Your task to perform on an android device: uninstall "AliExpress" Image 0: 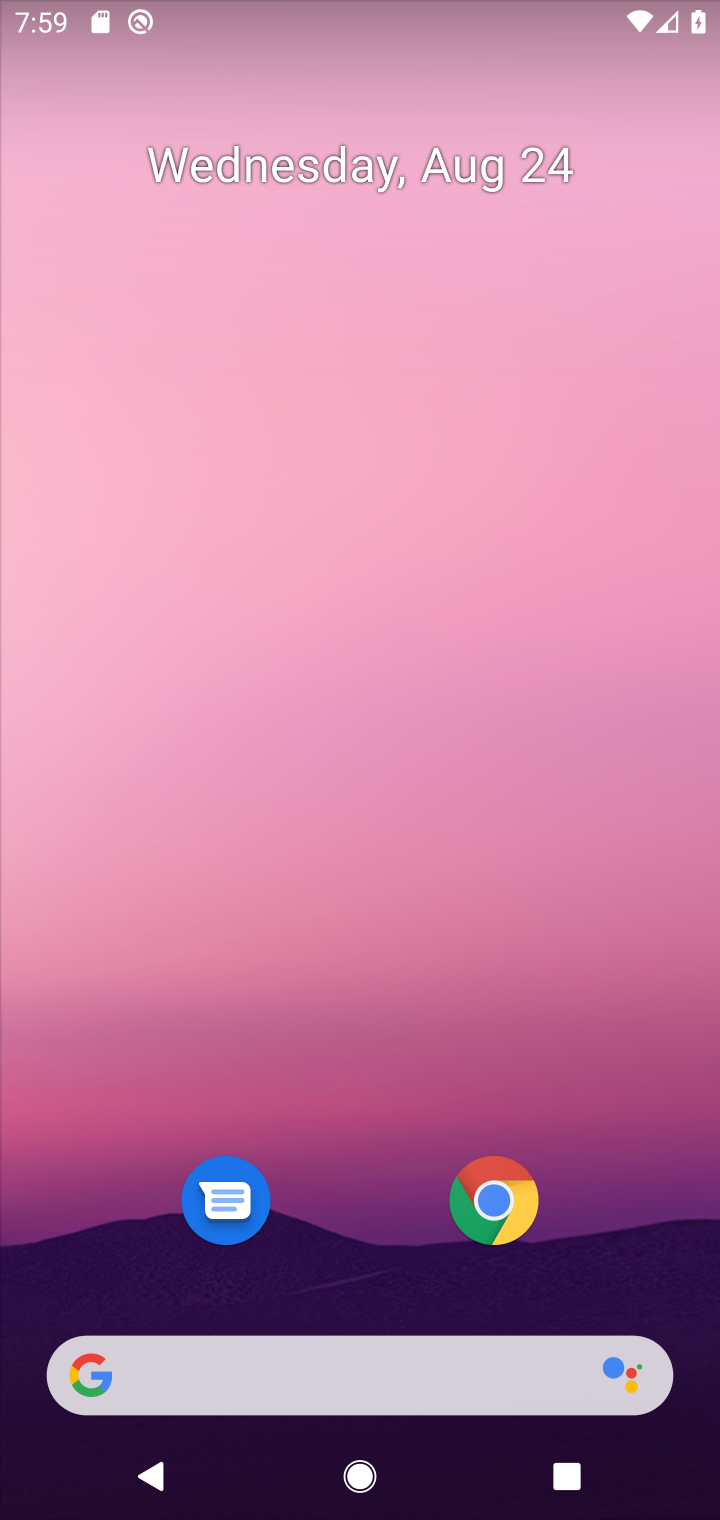
Step 0: drag from (342, 1254) to (615, 0)
Your task to perform on an android device: uninstall "AliExpress" Image 1: 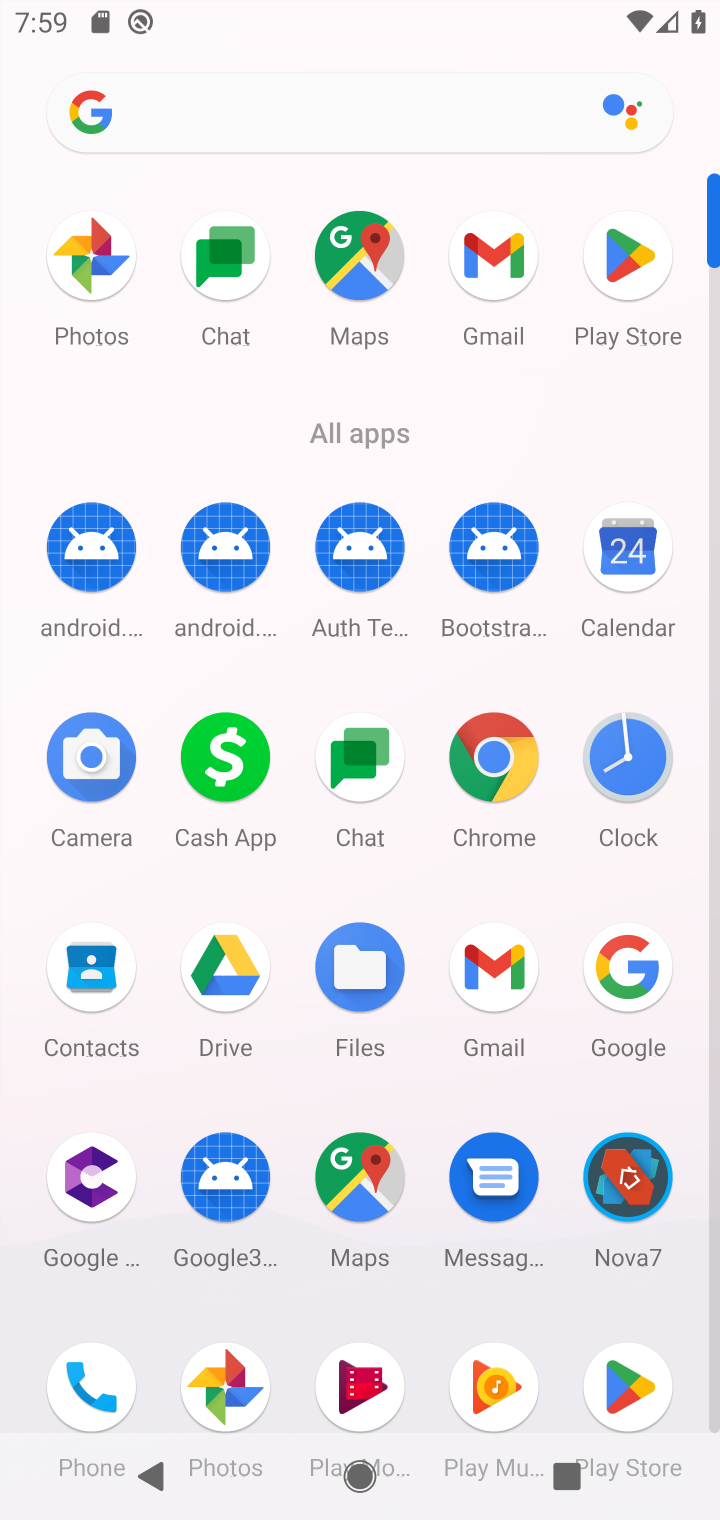
Step 1: click (641, 293)
Your task to perform on an android device: uninstall "AliExpress" Image 2: 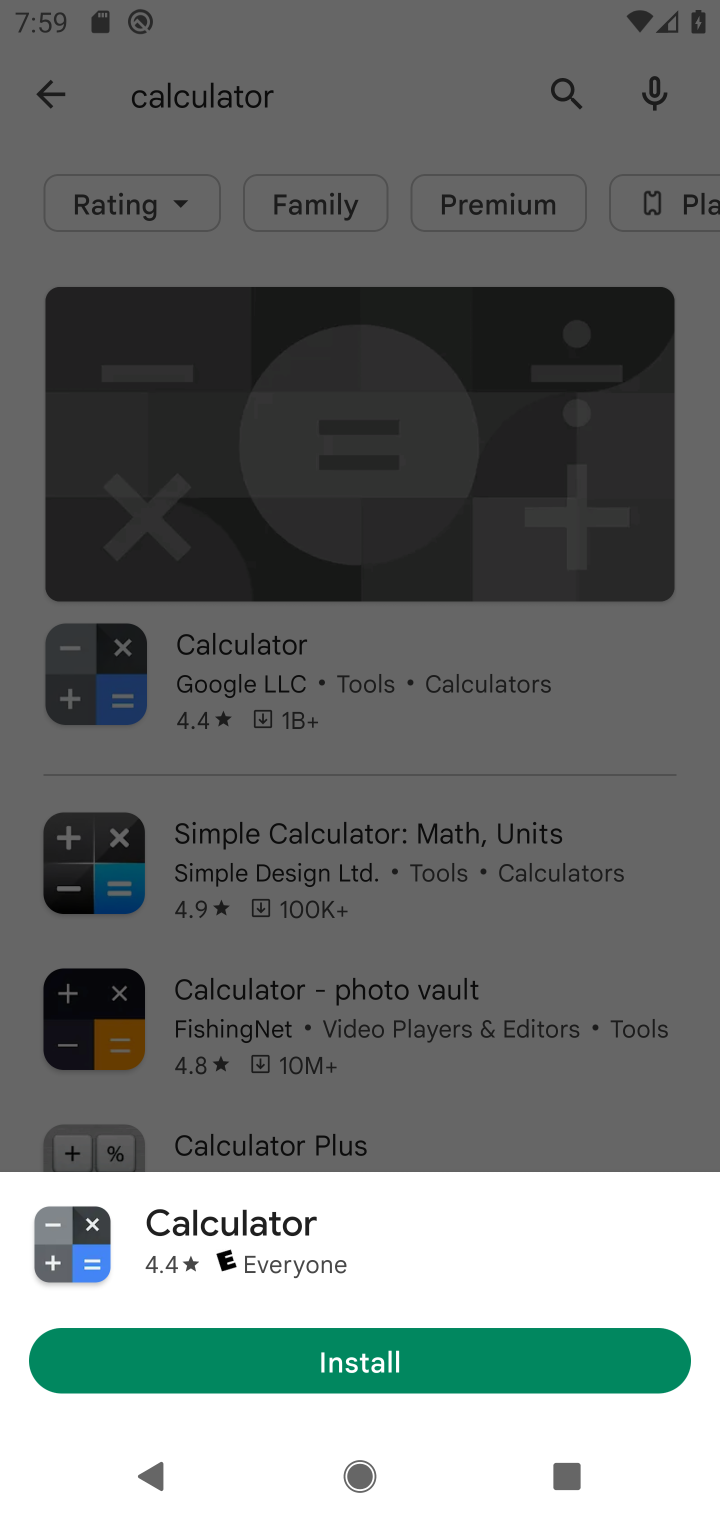
Step 2: click (70, 89)
Your task to perform on an android device: uninstall "AliExpress" Image 3: 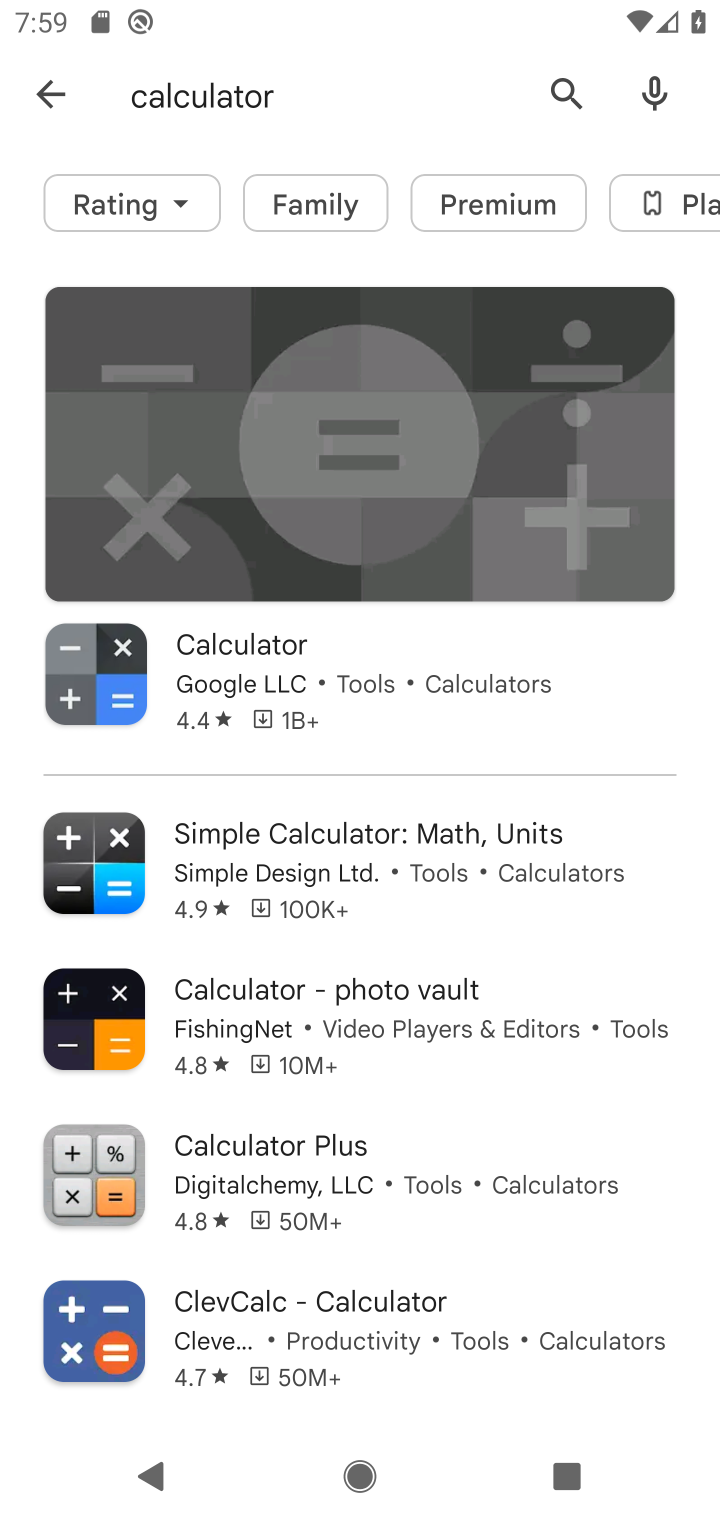
Step 3: click (291, 98)
Your task to perform on an android device: uninstall "AliExpress" Image 4: 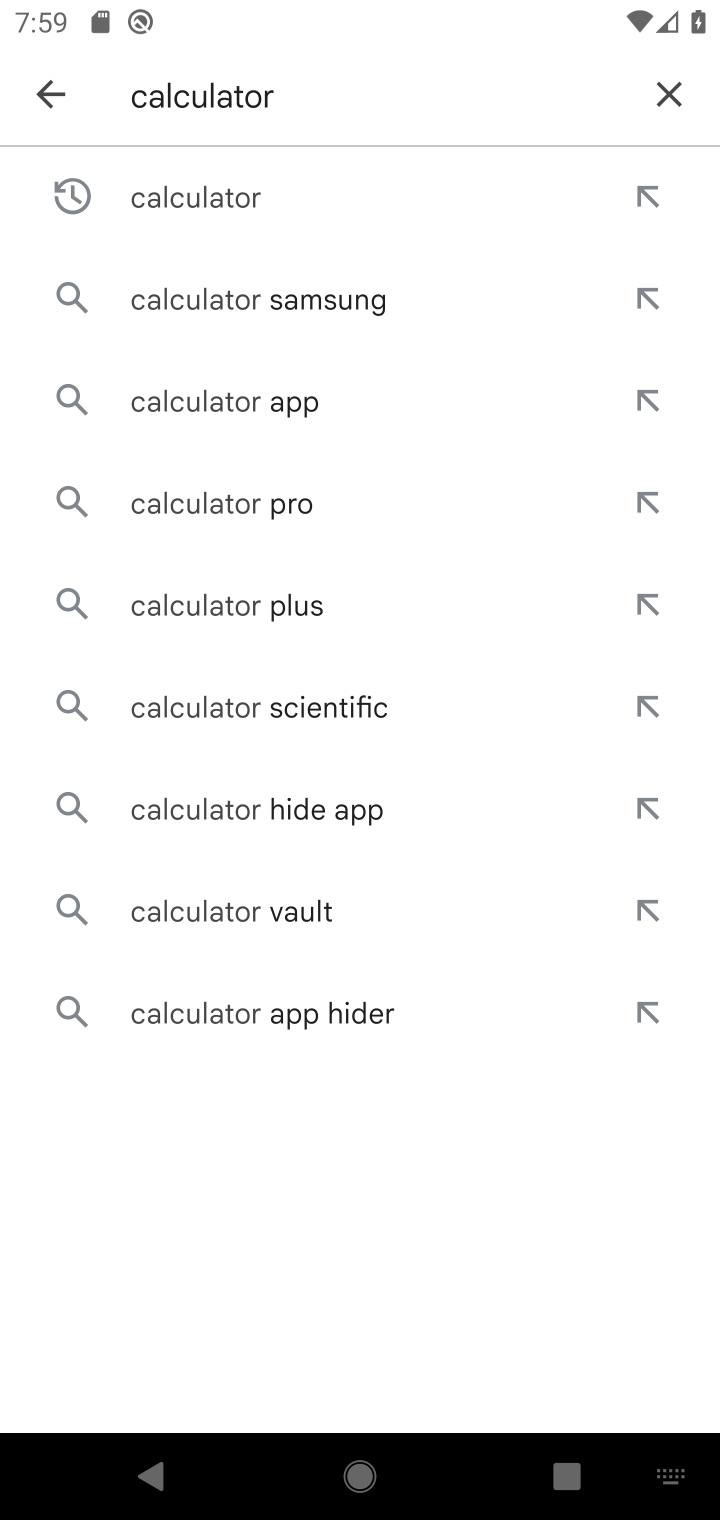
Step 4: click (678, 80)
Your task to perform on an android device: uninstall "AliExpress" Image 5: 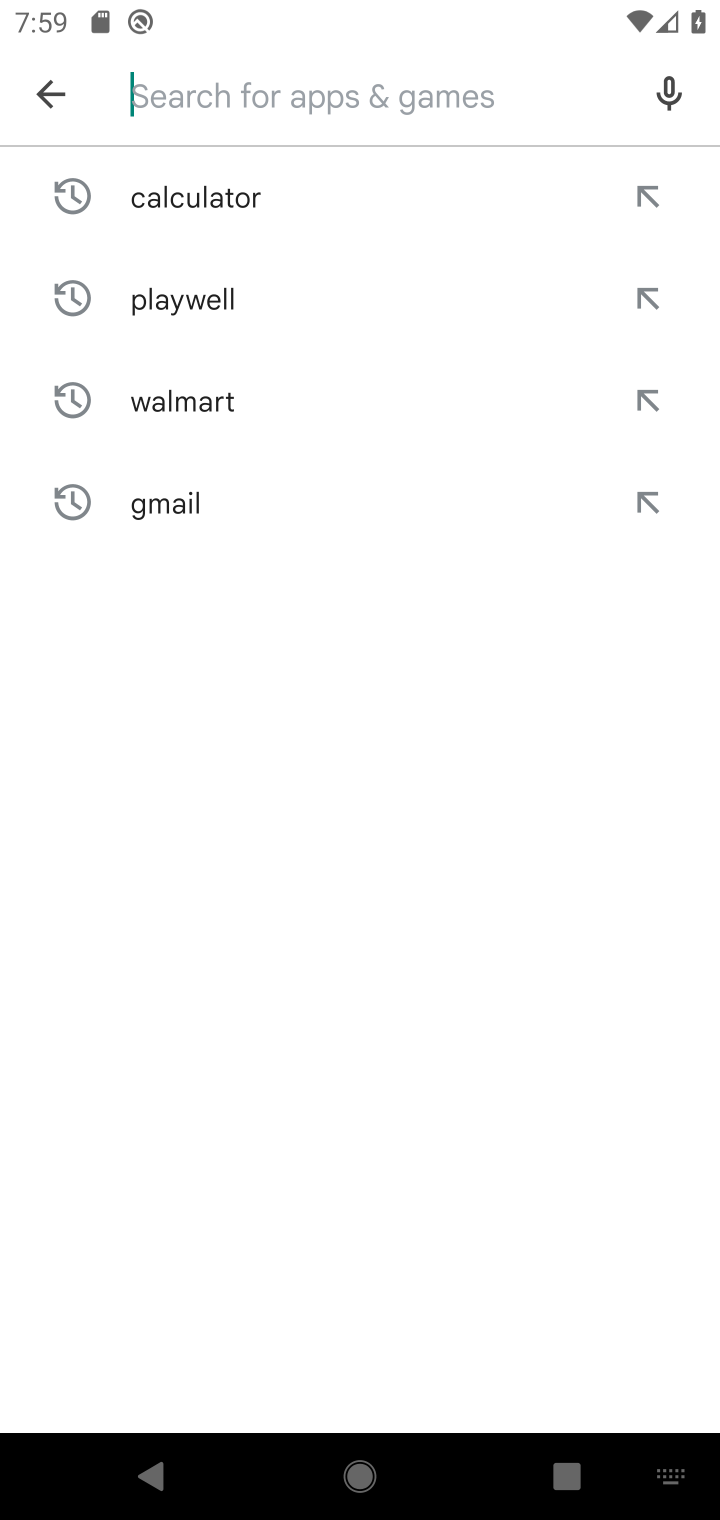
Step 5: type "AliExpress"
Your task to perform on an android device: uninstall "AliExpress" Image 6: 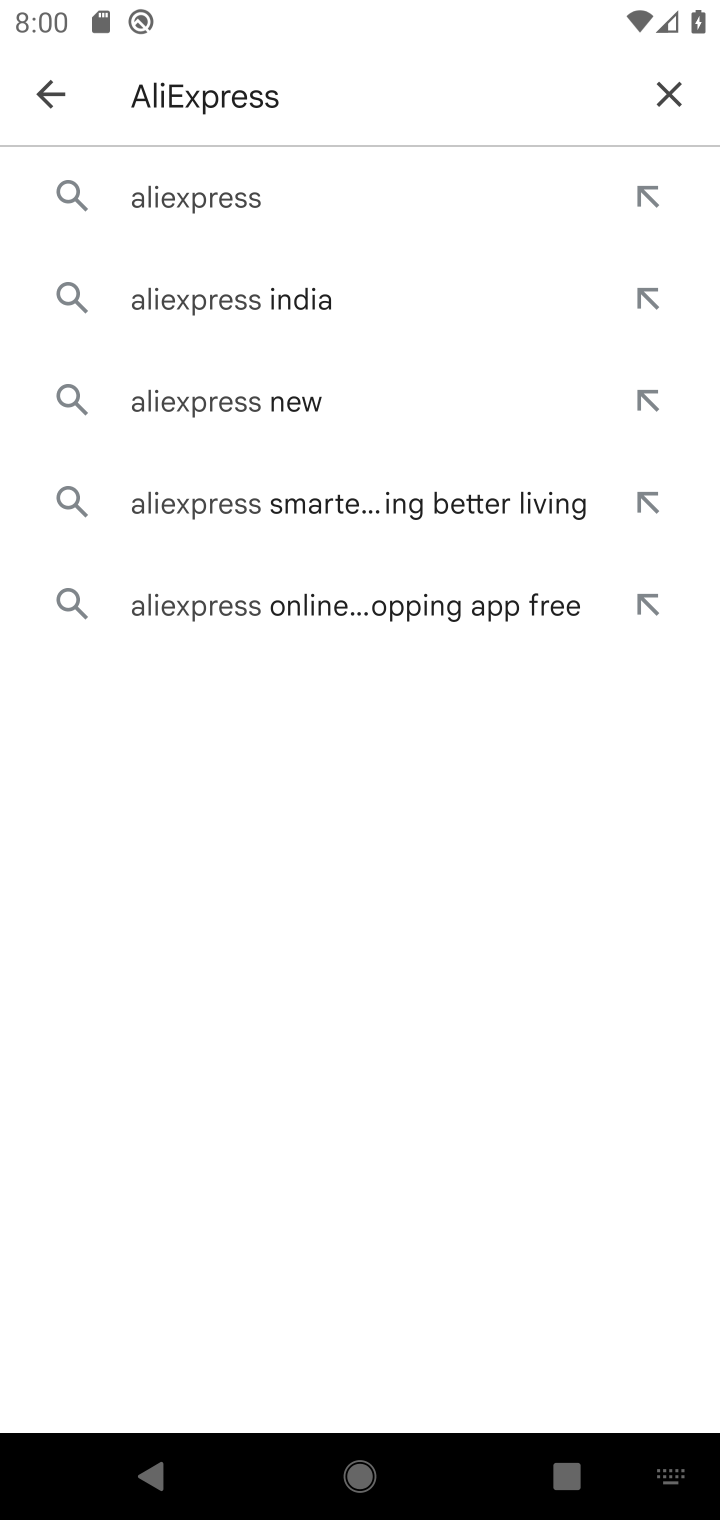
Step 6: click (275, 185)
Your task to perform on an android device: uninstall "AliExpress" Image 7: 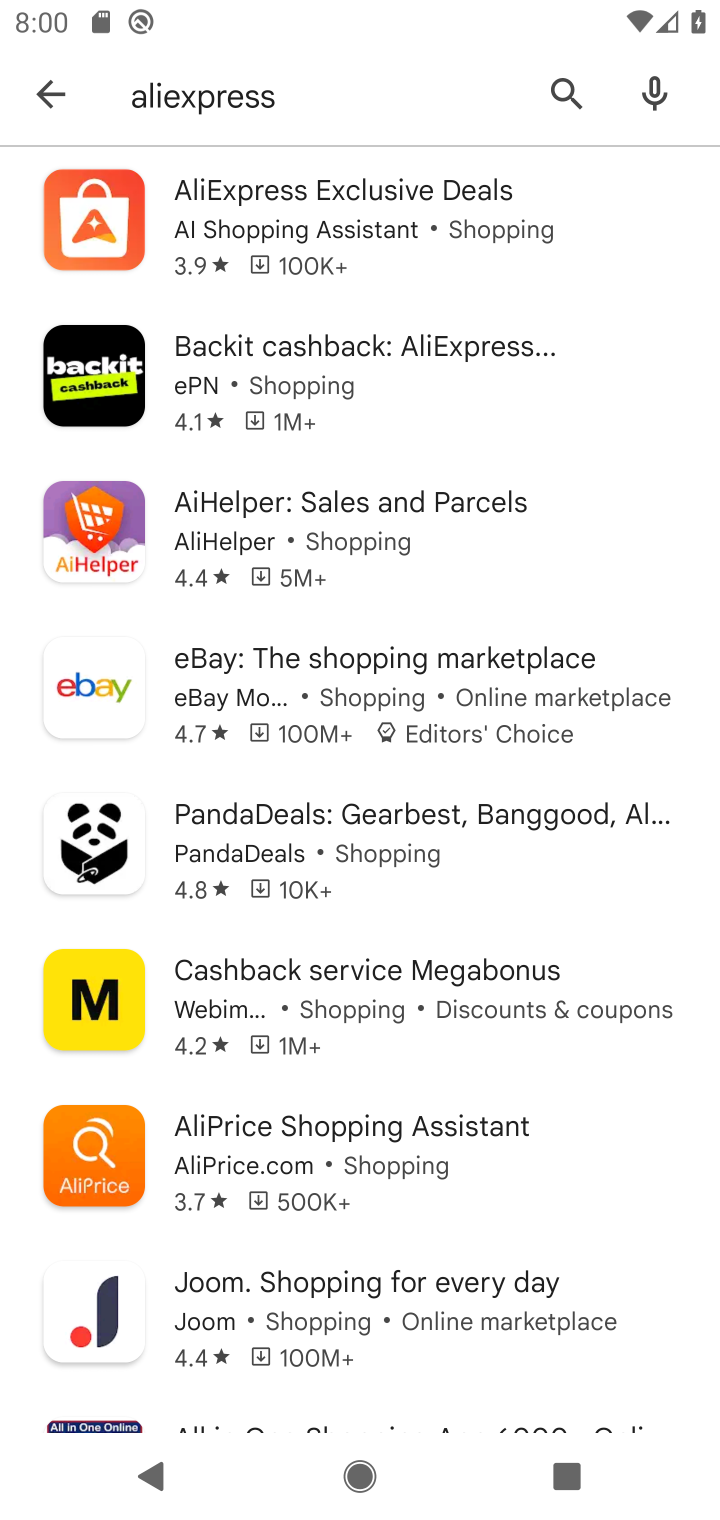
Step 7: click (288, 233)
Your task to perform on an android device: uninstall "AliExpress" Image 8: 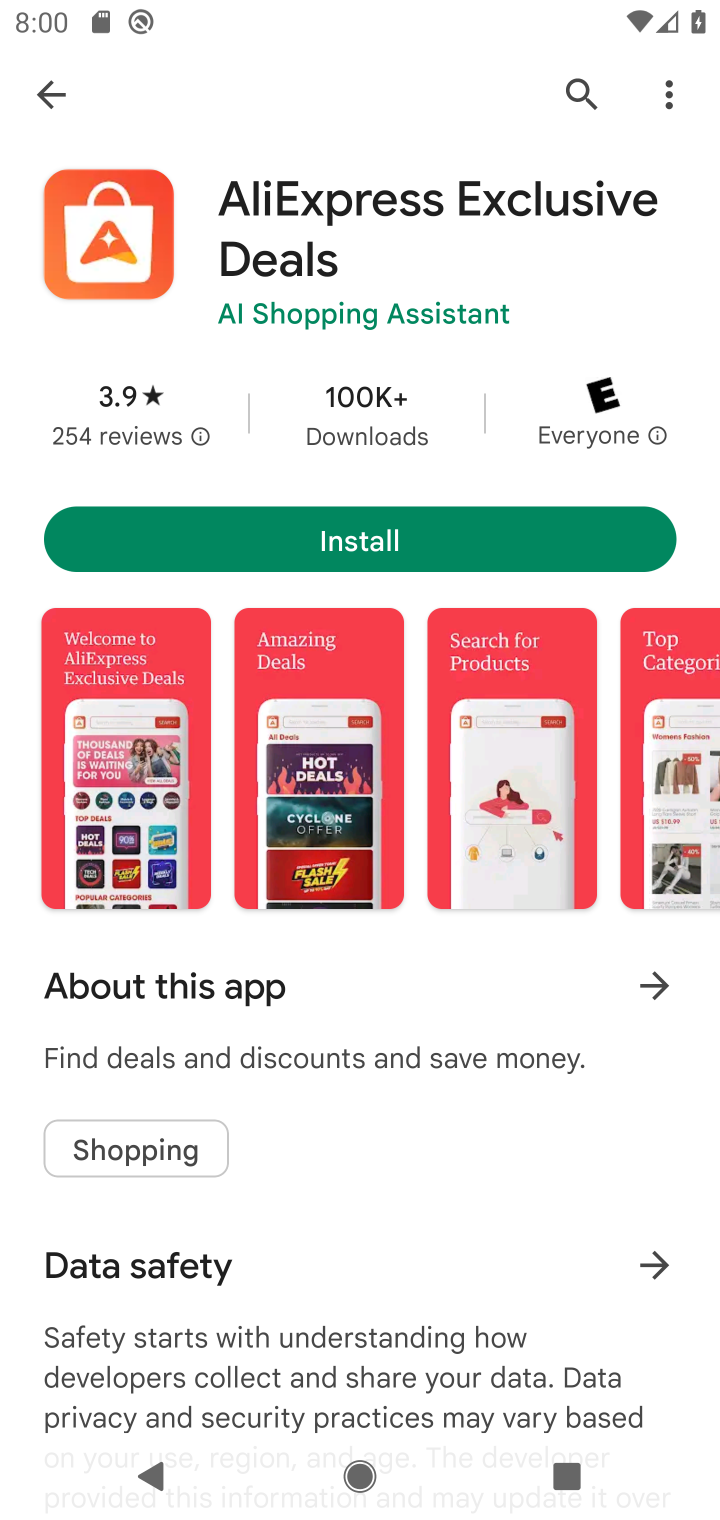
Step 8: task complete